Your task to perform on an android device: show emergency info Image 0: 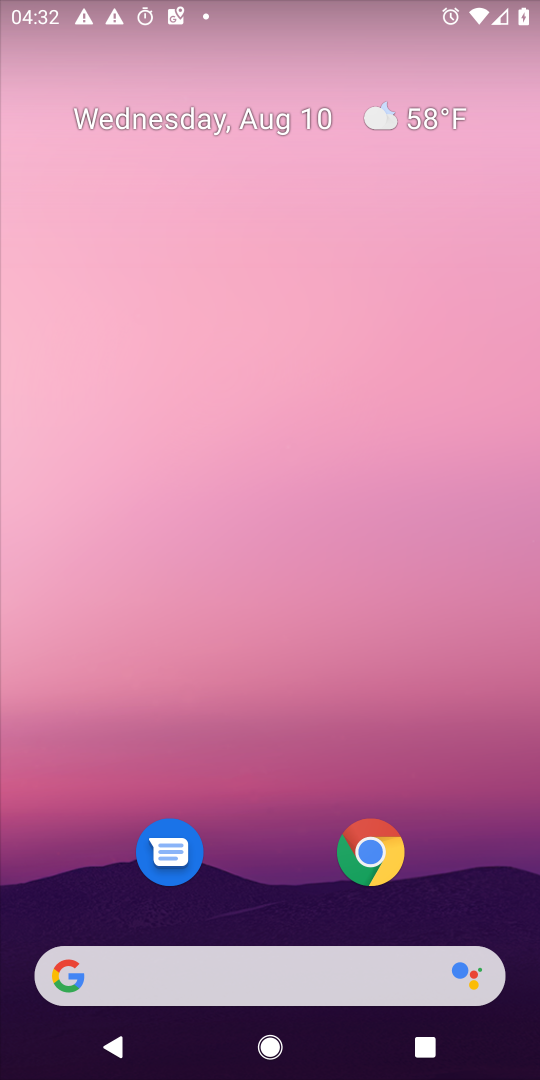
Step 0: drag from (296, 910) to (292, 430)
Your task to perform on an android device: show emergency info Image 1: 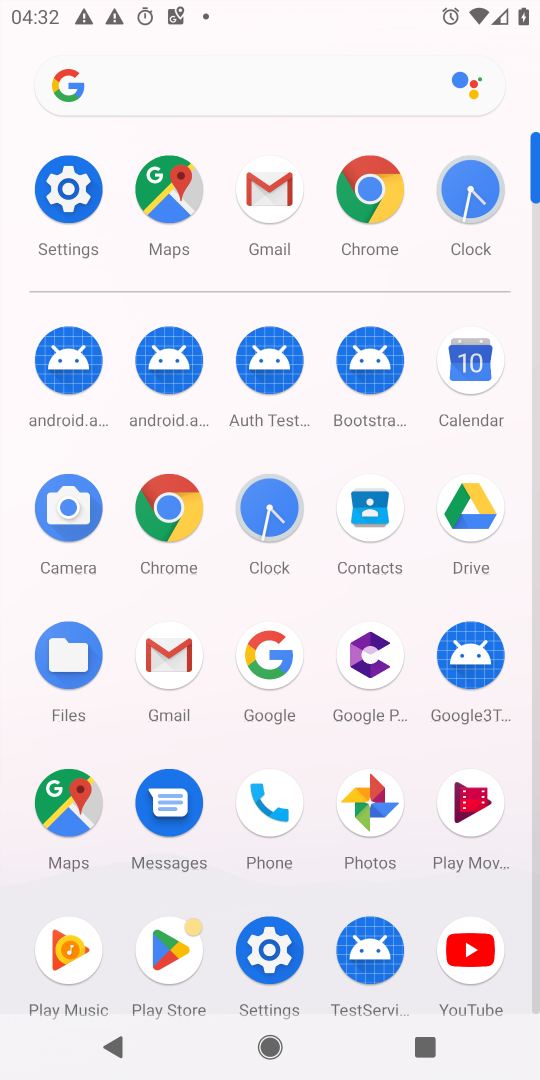
Step 1: click (52, 194)
Your task to perform on an android device: show emergency info Image 2: 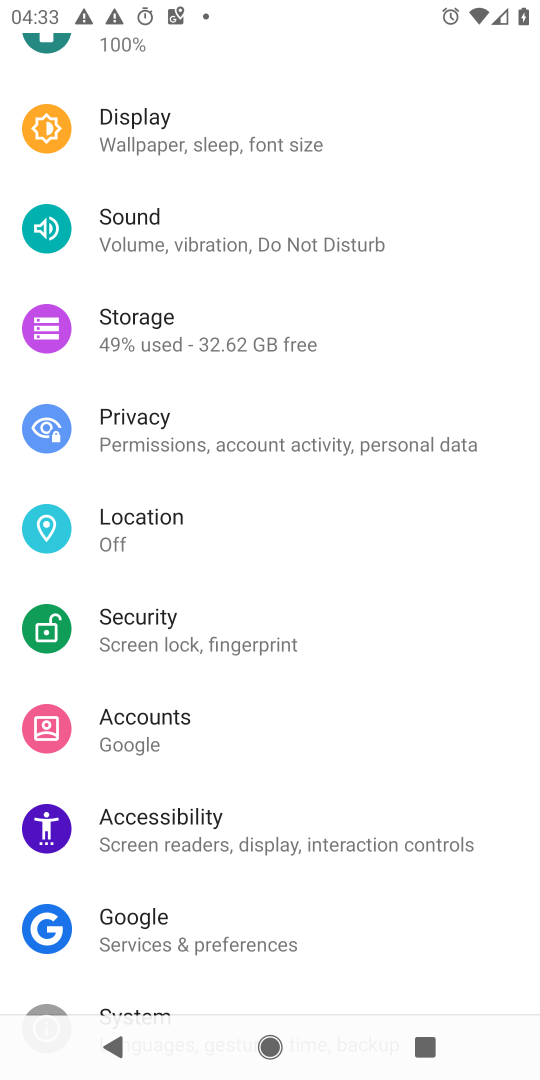
Step 2: drag from (307, 932) to (147, 0)
Your task to perform on an android device: show emergency info Image 3: 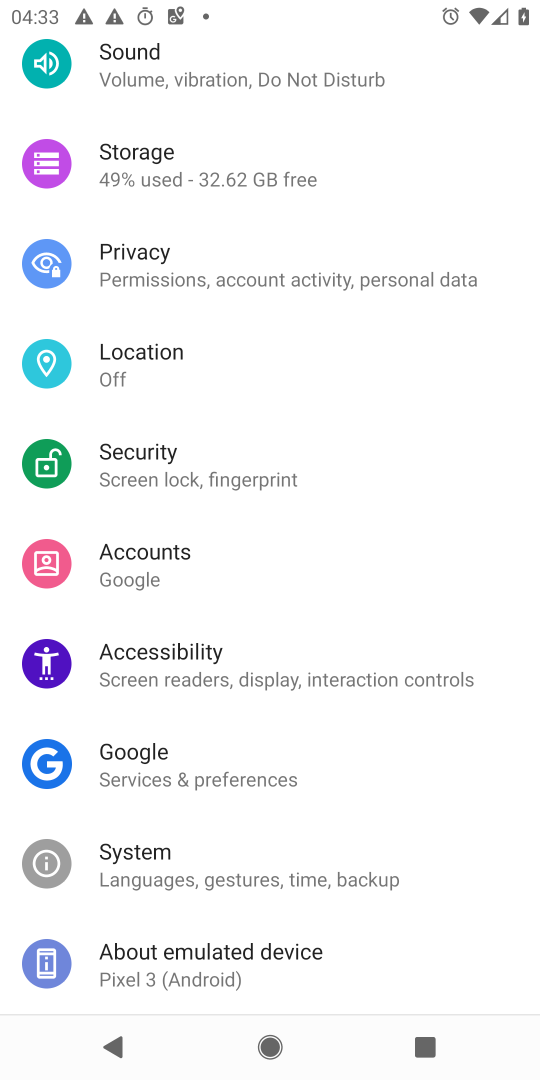
Step 3: click (209, 975)
Your task to perform on an android device: show emergency info Image 4: 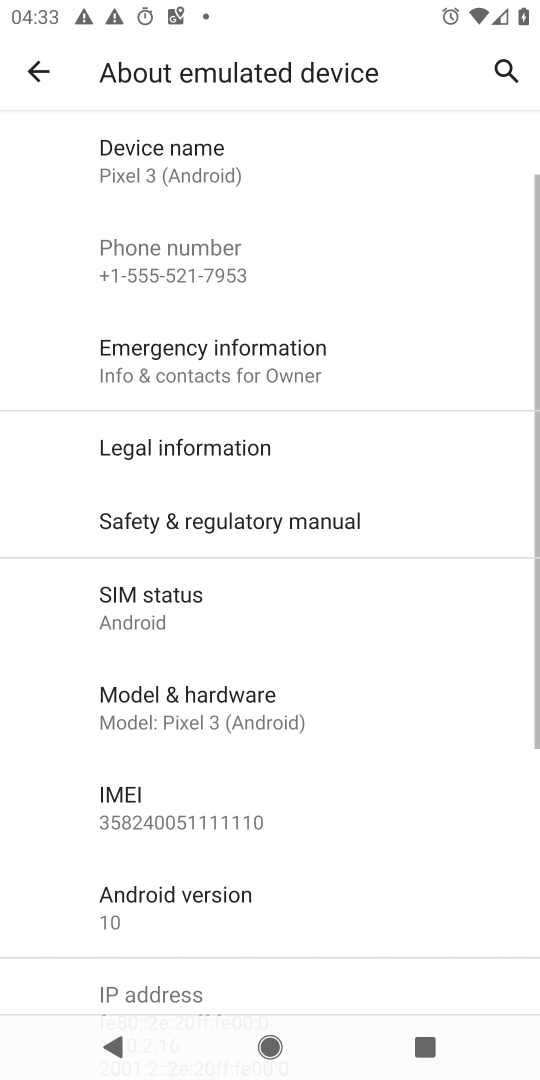
Step 4: click (188, 365)
Your task to perform on an android device: show emergency info Image 5: 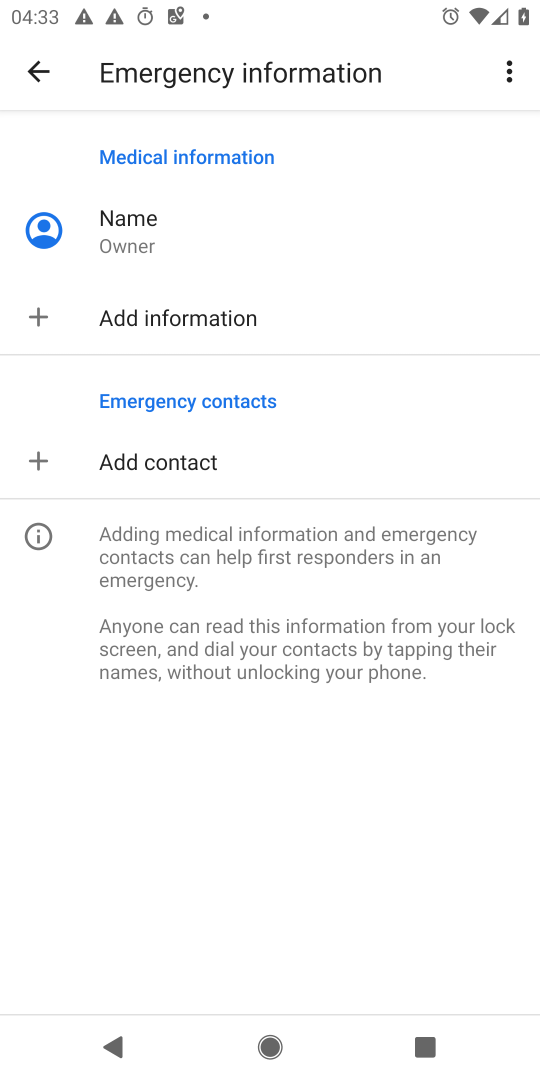
Step 5: task complete